Your task to perform on an android device: Go to Wikipedia Image 0: 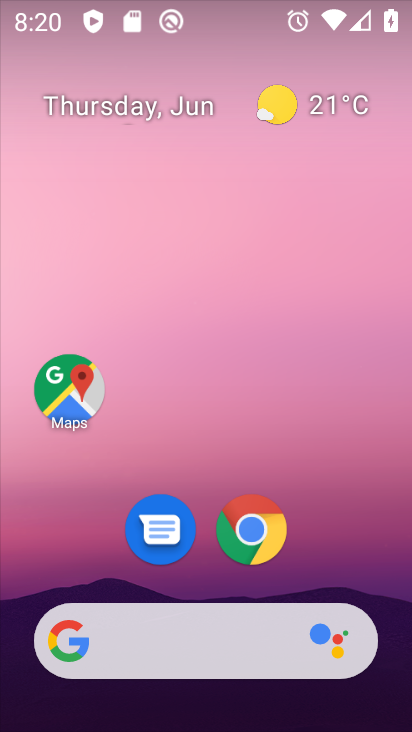
Step 0: click (246, 538)
Your task to perform on an android device: Go to Wikipedia Image 1: 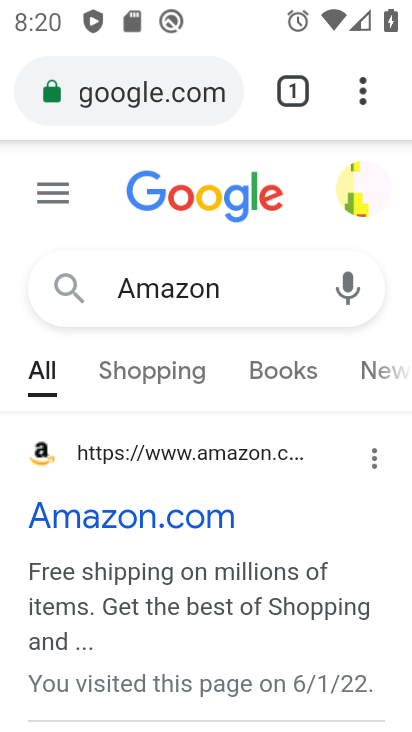
Step 1: click (230, 86)
Your task to perform on an android device: Go to Wikipedia Image 2: 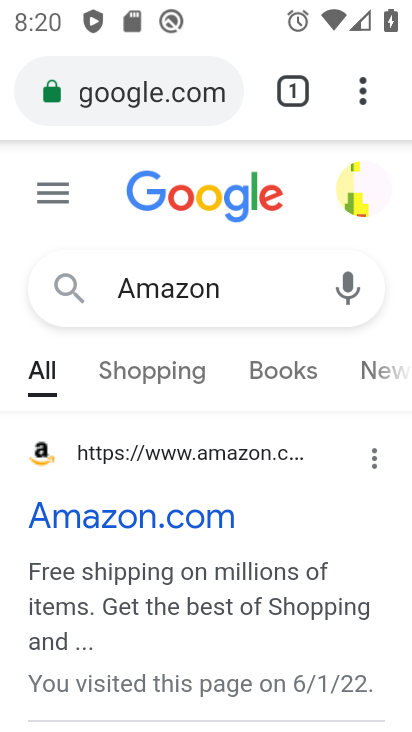
Step 2: click (231, 91)
Your task to perform on an android device: Go to Wikipedia Image 3: 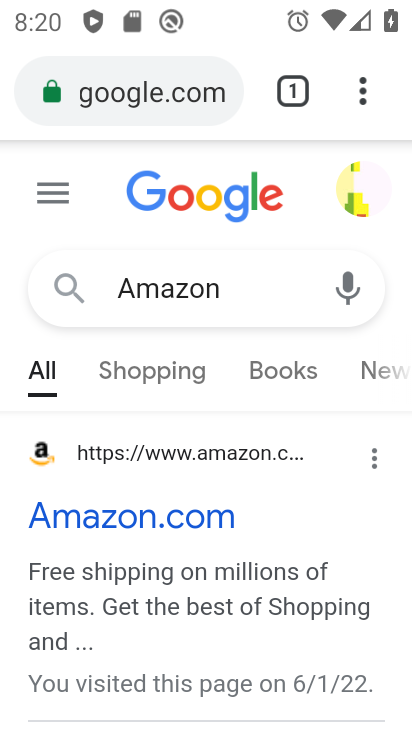
Step 3: click (216, 89)
Your task to perform on an android device: Go to Wikipedia Image 4: 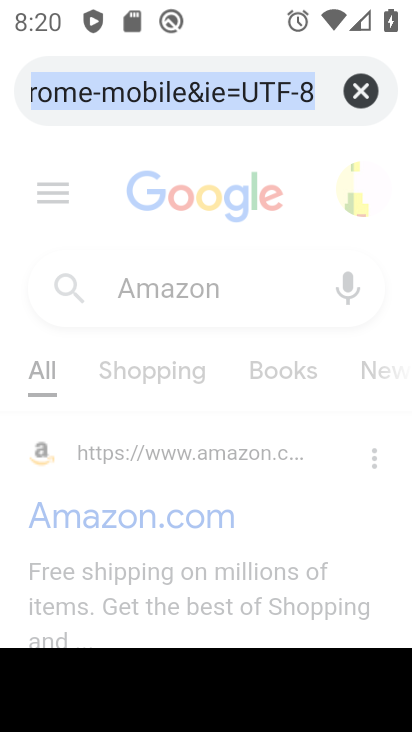
Step 4: click (353, 88)
Your task to perform on an android device: Go to Wikipedia Image 5: 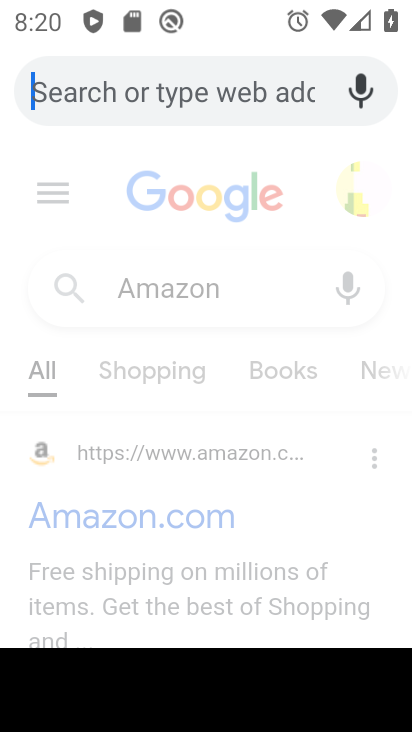
Step 5: type "Wikipedia"
Your task to perform on an android device: Go to Wikipedia Image 6: 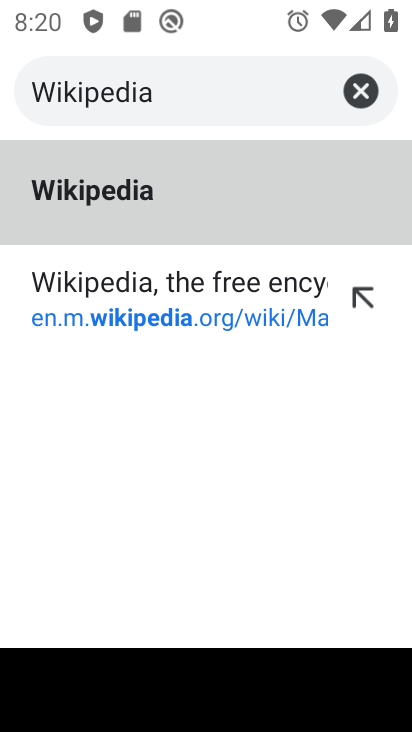
Step 6: click (126, 195)
Your task to perform on an android device: Go to Wikipedia Image 7: 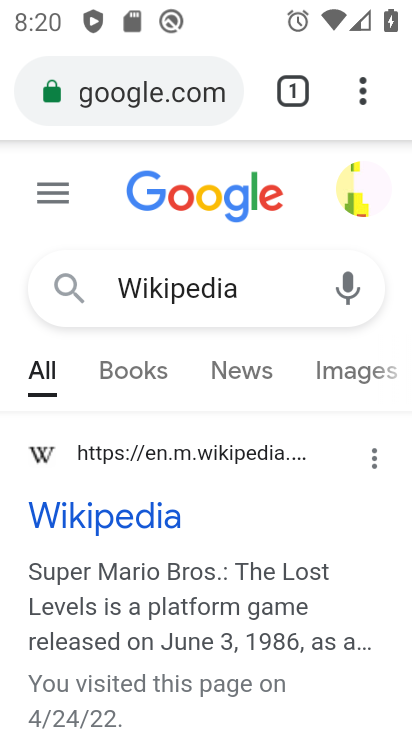
Step 7: task complete